Your task to perform on an android device: turn on bluetooth scan Image 0: 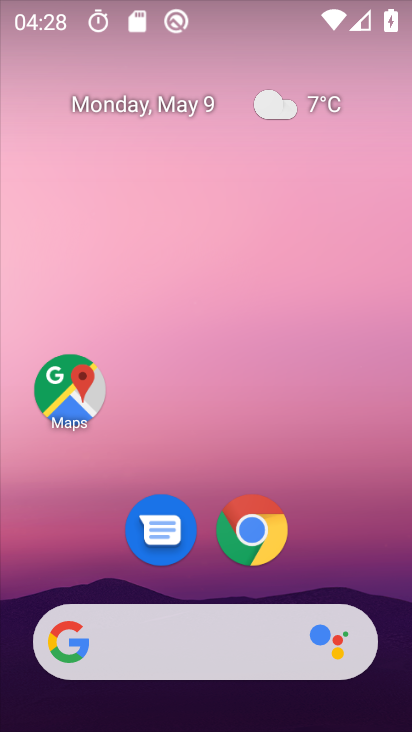
Step 0: drag from (193, 558) to (265, 101)
Your task to perform on an android device: turn on bluetooth scan Image 1: 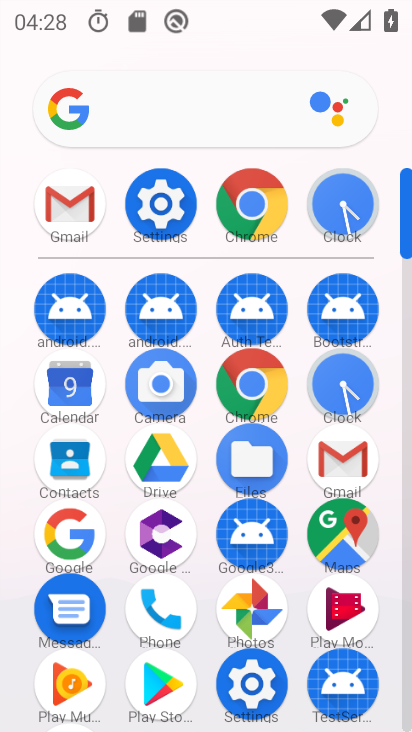
Step 1: click (160, 200)
Your task to perform on an android device: turn on bluetooth scan Image 2: 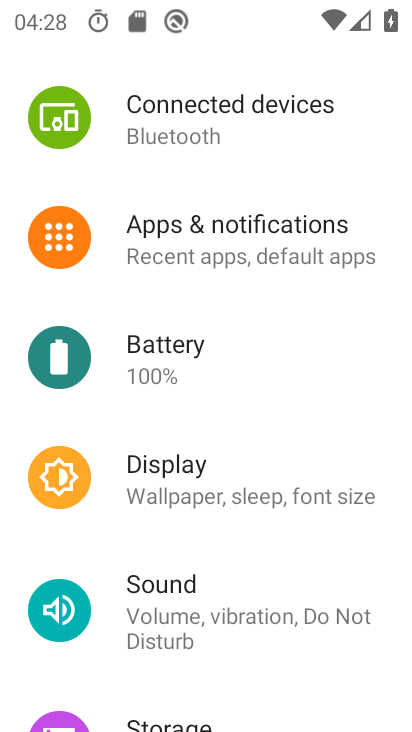
Step 2: click (211, 120)
Your task to perform on an android device: turn on bluetooth scan Image 3: 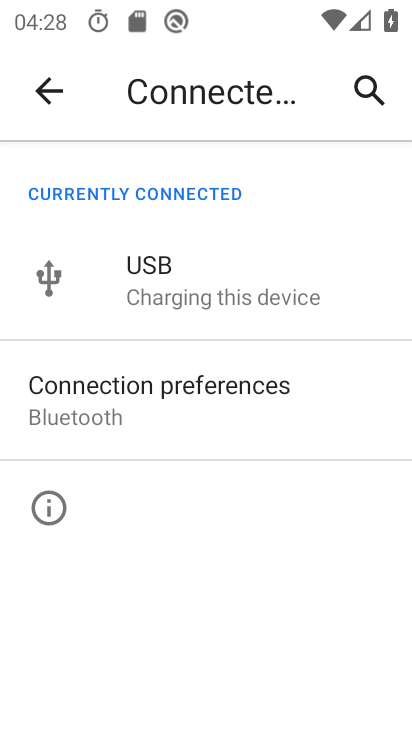
Step 3: click (84, 410)
Your task to perform on an android device: turn on bluetooth scan Image 4: 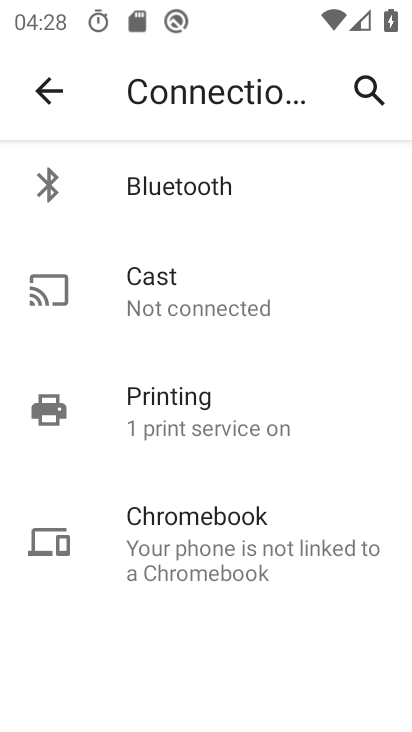
Step 4: click (165, 166)
Your task to perform on an android device: turn on bluetooth scan Image 5: 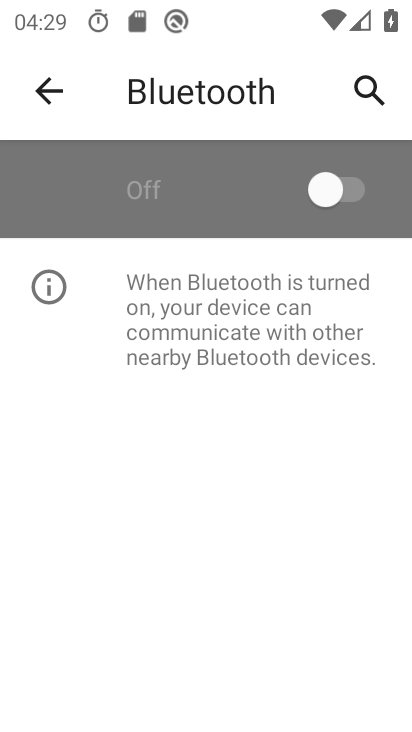
Step 5: click (315, 201)
Your task to perform on an android device: turn on bluetooth scan Image 6: 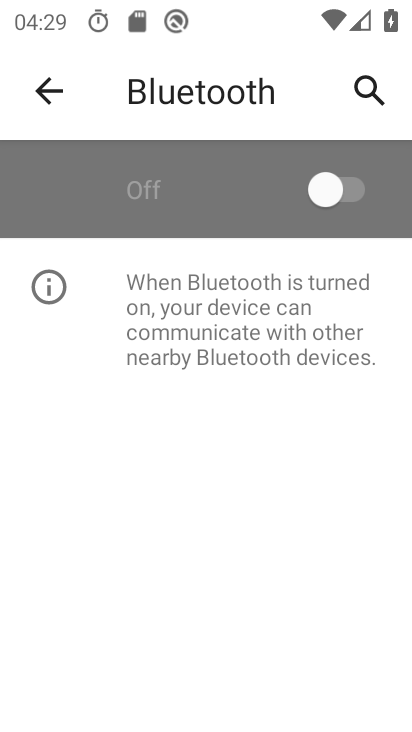
Step 6: task complete